Your task to perform on an android device: allow cookies in the chrome app Image 0: 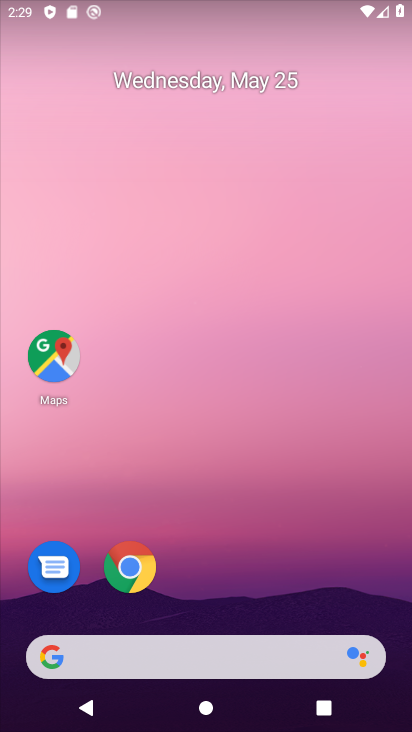
Step 0: click (144, 580)
Your task to perform on an android device: allow cookies in the chrome app Image 1: 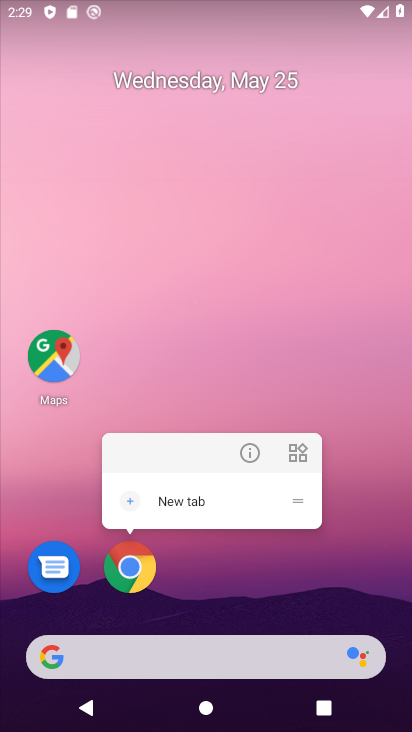
Step 1: click (144, 580)
Your task to perform on an android device: allow cookies in the chrome app Image 2: 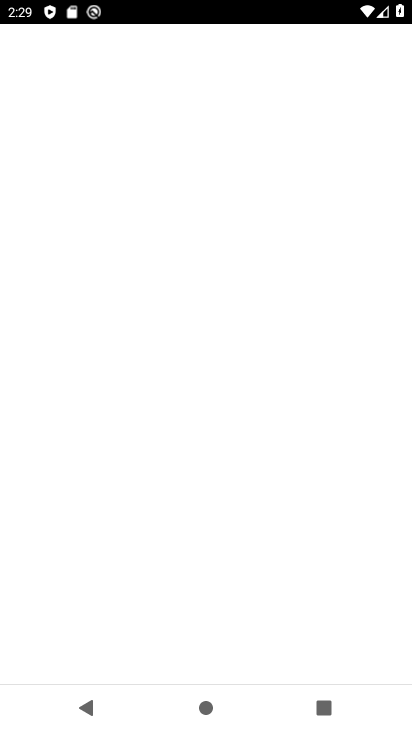
Step 2: click (142, 577)
Your task to perform on an android device: allow cookies in the chrome app Image 3: 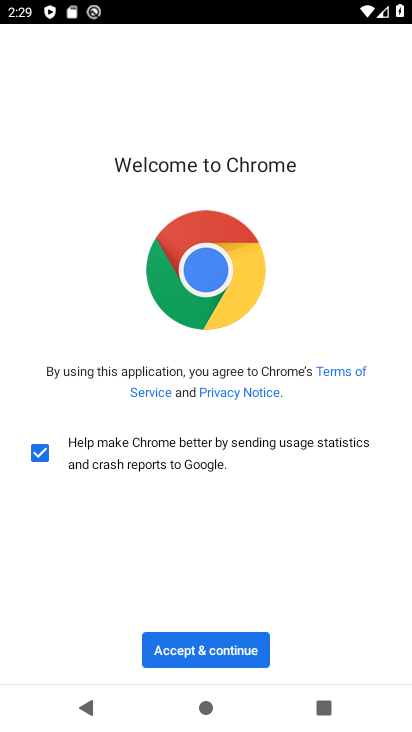
Step 3: click (229, 617)
Your task to perform on an android device: allow cookies in the chrome app Image 4: 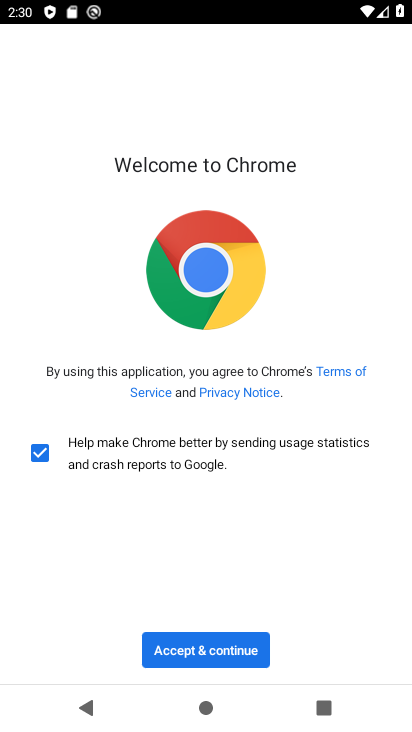
Step 4: click (256, 667)
Your task to perform on an android device: allow cookies in the chrome app Image 5: 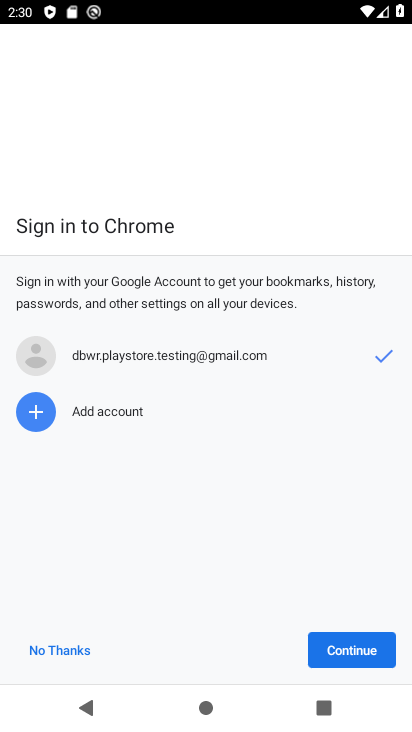
Step 5: click (357, 640)
Your task to perform on an android device: allow cookies in the chrome app Image 6: 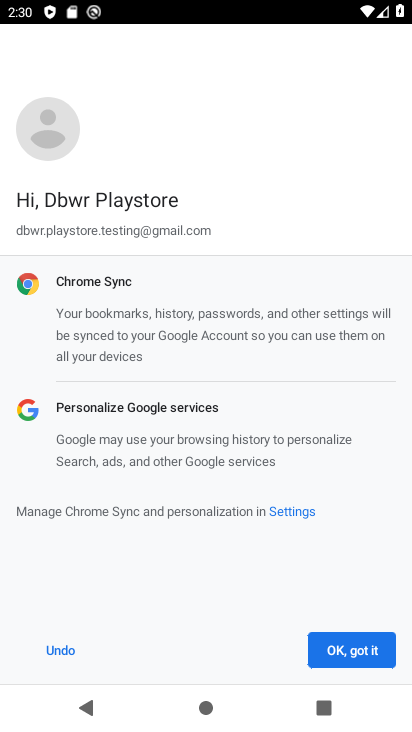
Step 6: click (396, 637)
Your task to perform on an android device: allow cookies in the chrome app Image 7: 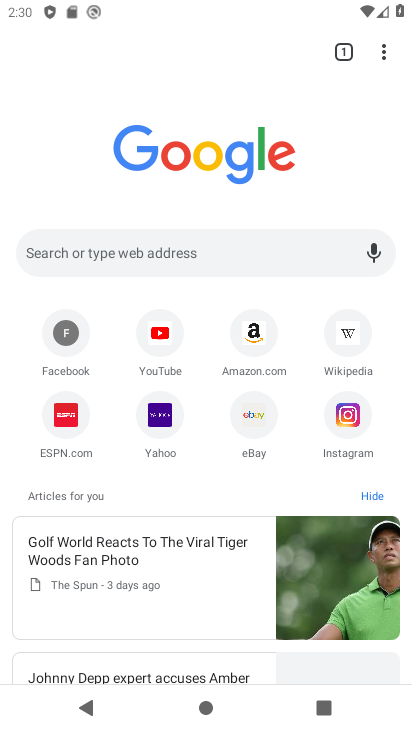
Step 7: drag from (399, 66) to (261, 445)
Your task to perform on an android device: allow cookies in the chrome app Image 8: 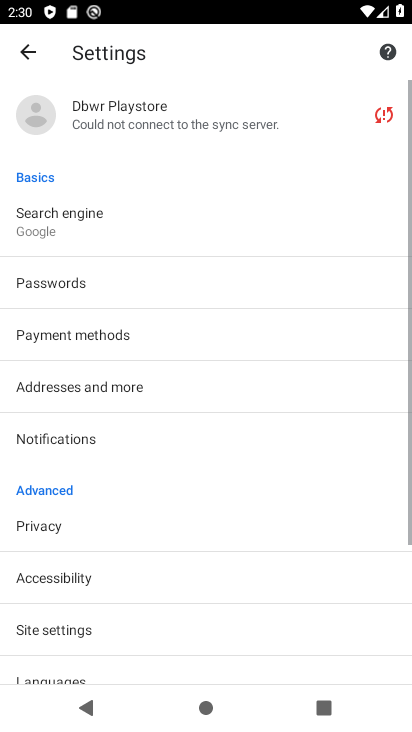
Step 8: drag from (125, 690) to (219, 334)
Your task to perform on an android device: allow cookies in the chrome app Image 9: 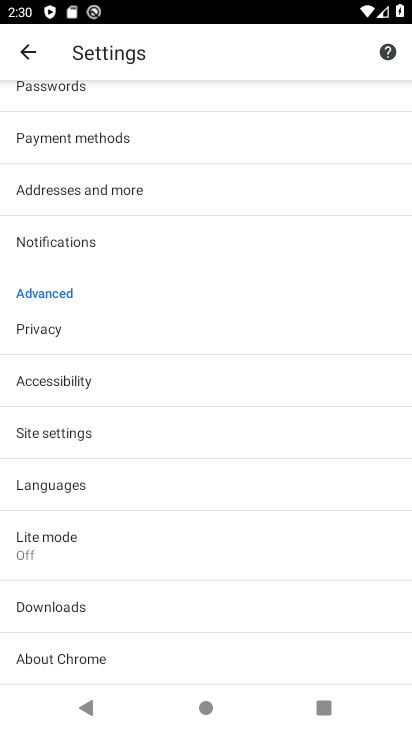
Step 9: click (111, 441)
Your task to perform on an android device: allow cookies in the chrome app Image 10: 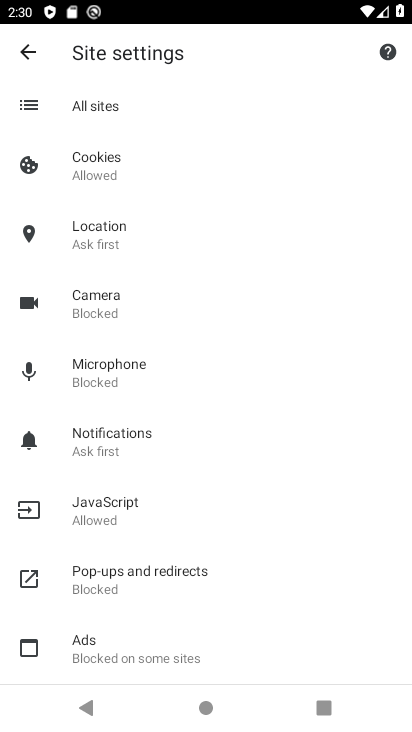
Step 10: click (155, 164)
Your task to perform on an android device: allow cookies in the chrome app Image 11: 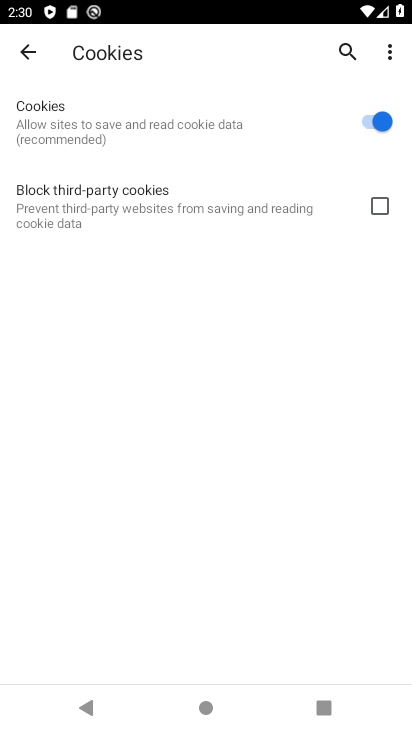
Step 11: task complete